Your task to perform on an android device: open device folders in google photos Image 0: 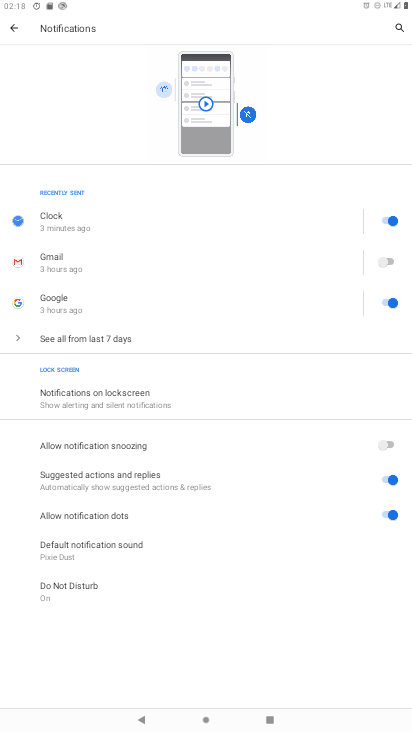
Step 0: press home button
Your task to perform on an android device: open device folders in google photos Image 1: 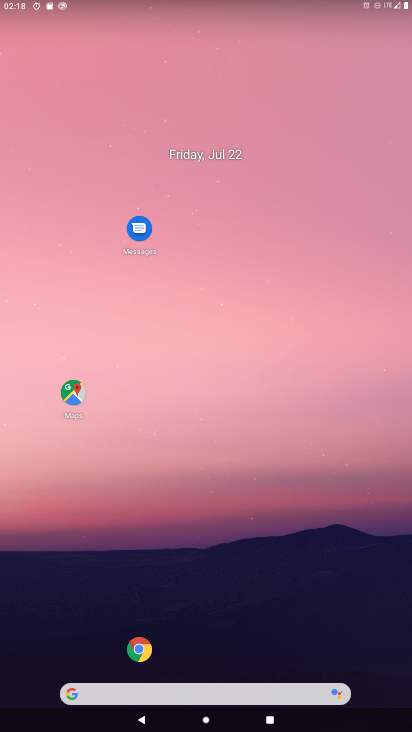
Step 1: drag from (30, 667) to (174, 166)
Your task to perform on an android device: open device folders in google photos Image 2: 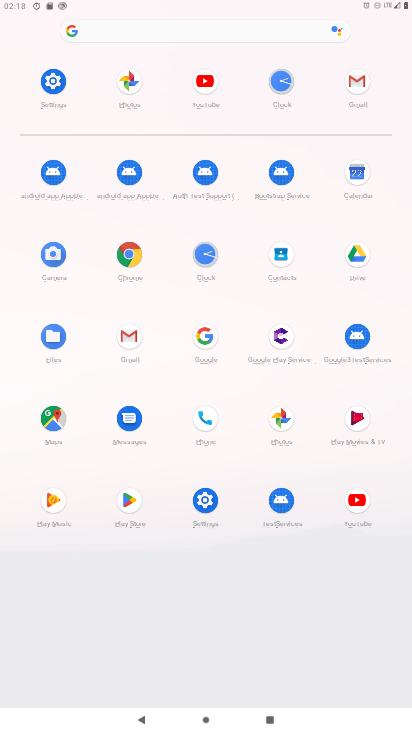
Step 2: click (288, 426)
Your task to perform on an android device: open device folders in google photos Image 3: 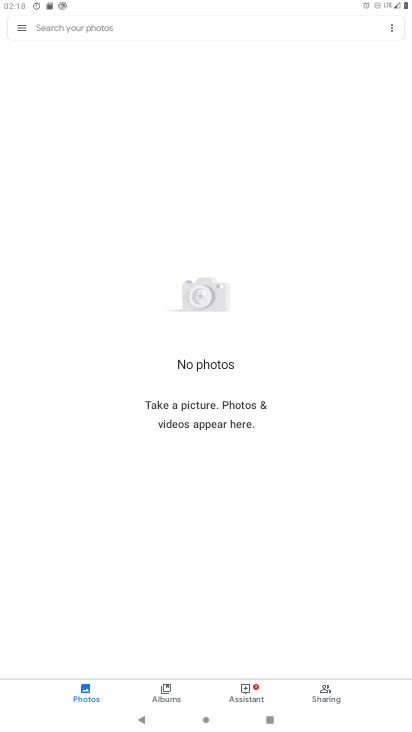
Step 3: click (20, 26)
Your task to perform on an android device: open device folders in google photos Image 4: 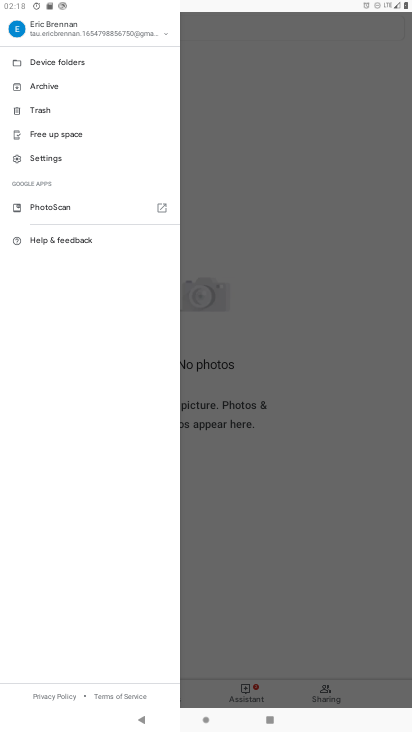
Step 4: click (37, 64)
Your task to perform on an android device: open device folders in google photos Image 5: 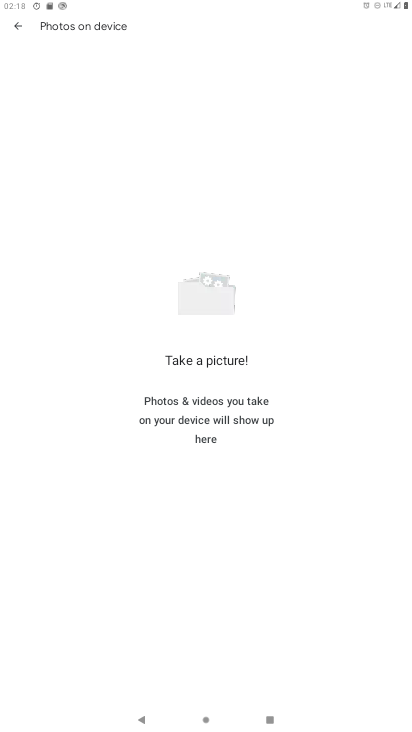
Step 5: task complete